Your task to perform on an android device: check out phone information Image 0: 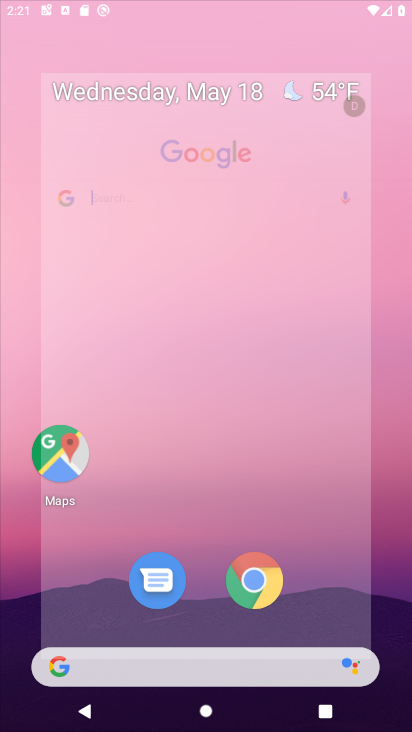
Step 0: drag from (204, 562) to (263, 99)
Your task to perform on an android device: check out phone information Image 1: 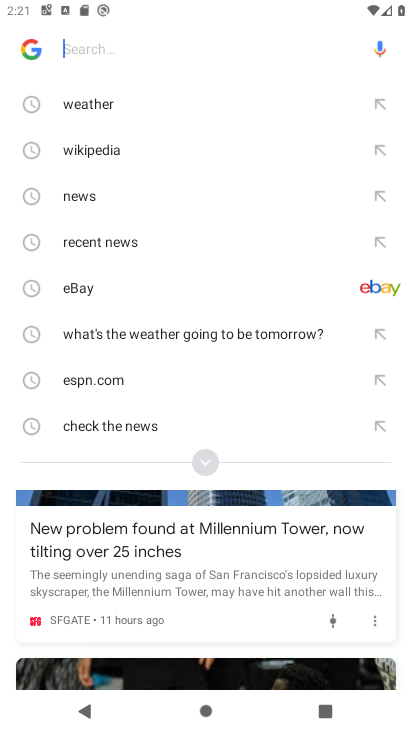
Step 1: press home button
Your task to perform on an android device: check out phone information Image 2: 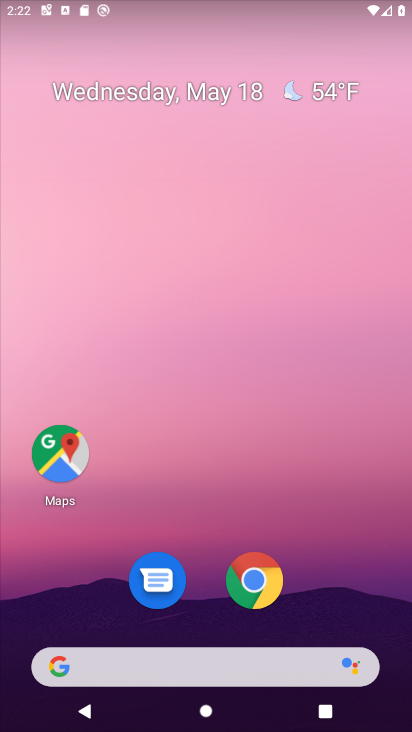
Step 2: drag from (194, 633) to (269, 87)
Your task to perform on an android device: check out phone information Image 3: 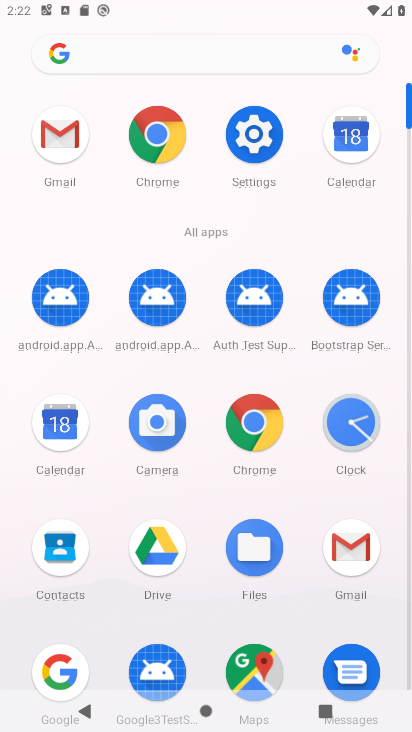
Step 3: click (258, 151)
Your task to perform on an android device: check out phone information Image 4: 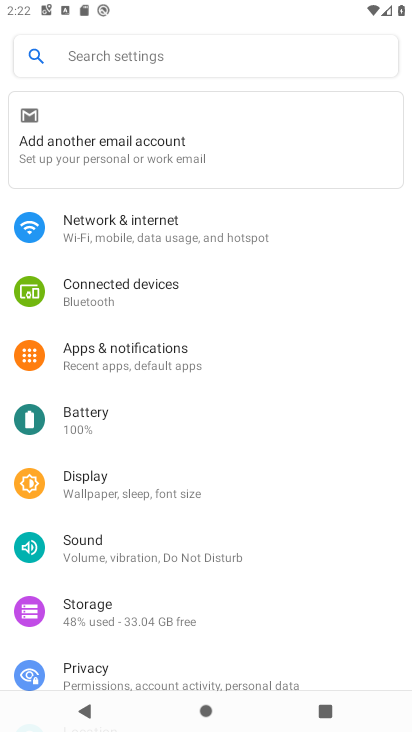
Step 4: drag from (109, 536) to (266, 13)
Your task to perform on an android device: check out phone information Image 5: 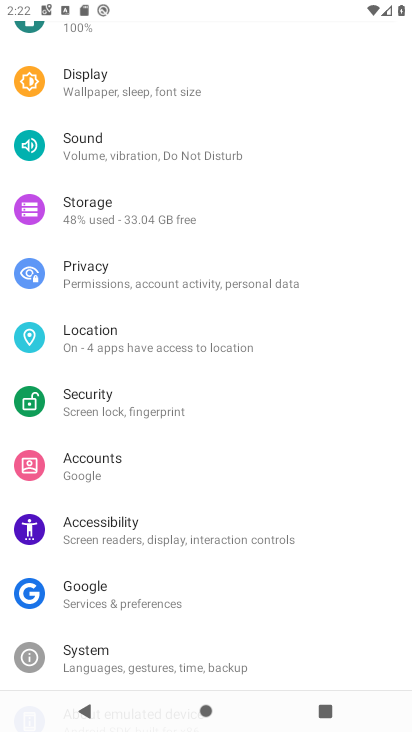
Step 5: drag from (171, 526) to (251, 4)
Your task to perform on an android device: check out phone information Image 6: 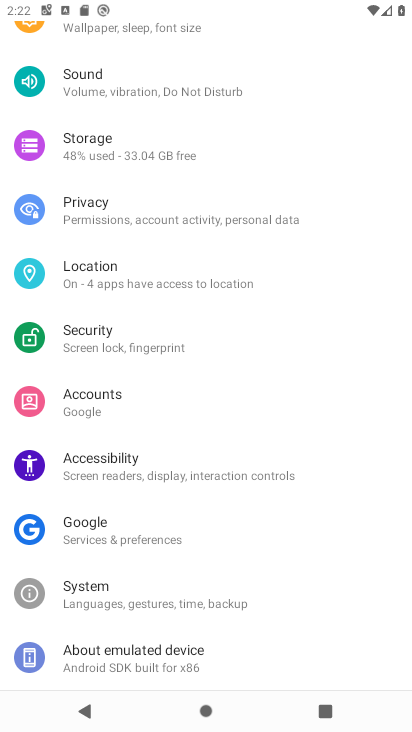
Step 6: click (113, 663)
Your task to perform on an android device: check out phone information Image 7: 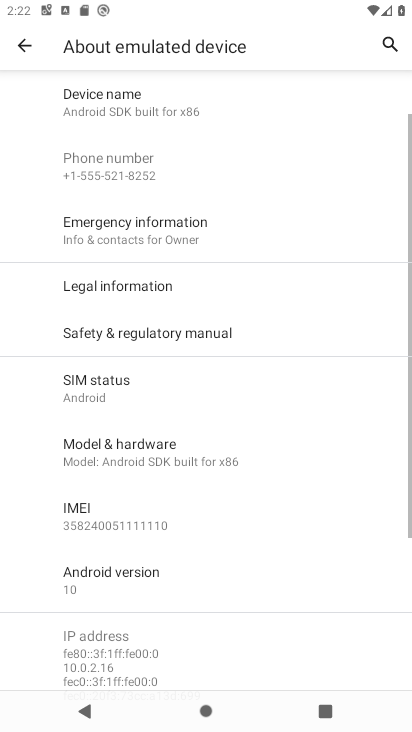
Step 7: task complete